Your task to perform on an android device: Open Chrome and go to settings Image 0: 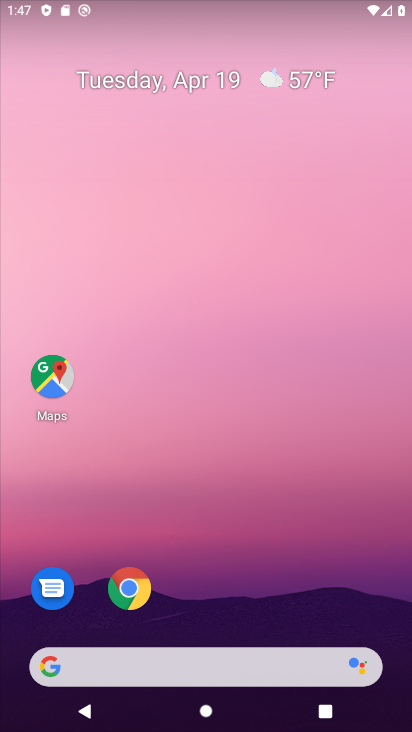
Step 0: click (131, 594)
Your task to perform on an android device: Open Chrome and go to settings Image 1: 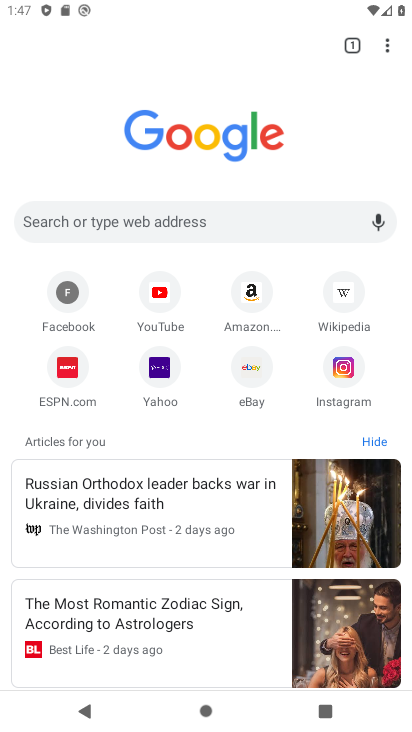
Step 1: click (386, 45)
Your task to perform on an android device: Open Chrome and go to settings Image 2: 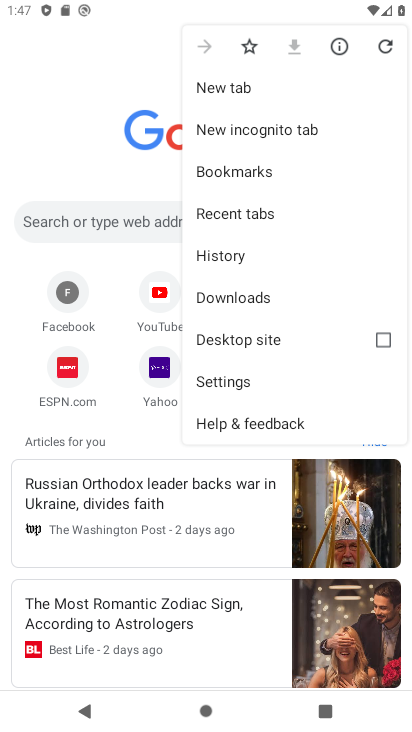
Step 2: click (251, 374)
Your task to perform on an android device: Open Chrome and go to settings Image 3: 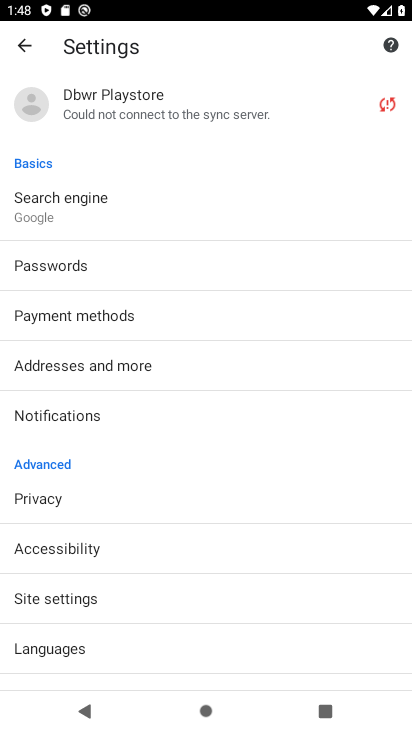
Step 3: task complete